Your task to perform on an android device: Go to sound settings Image 0: 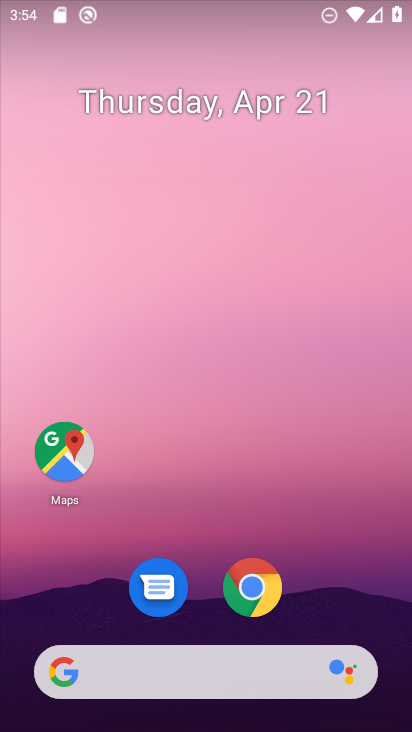
Step 0: drag from (357, 599) to (364, 52)
Your task to perform on an android device: Go to sound settings Image 1: 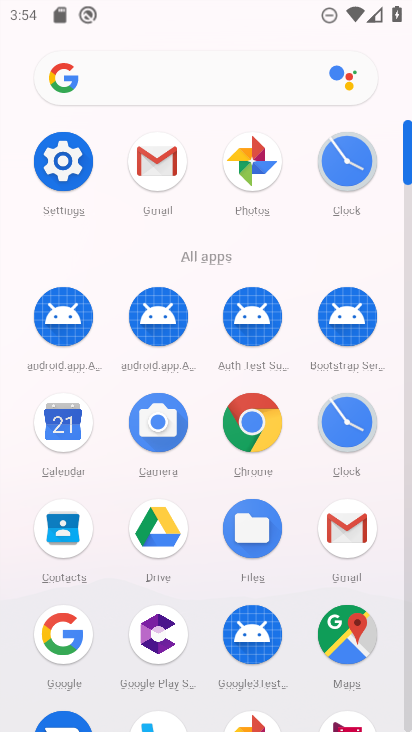
Step 1: click (66, 164)
Your task to perform on an android device: Go to sound settings Image 2: 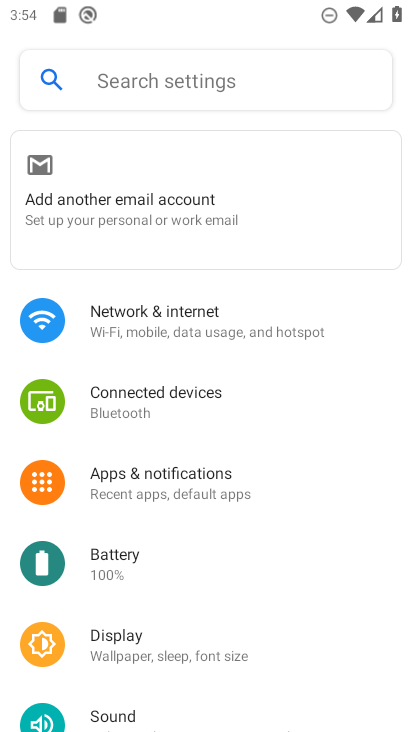
Step 2: click (113, 715)
Your task to perform on an android device: Go to sound settings Image 3: 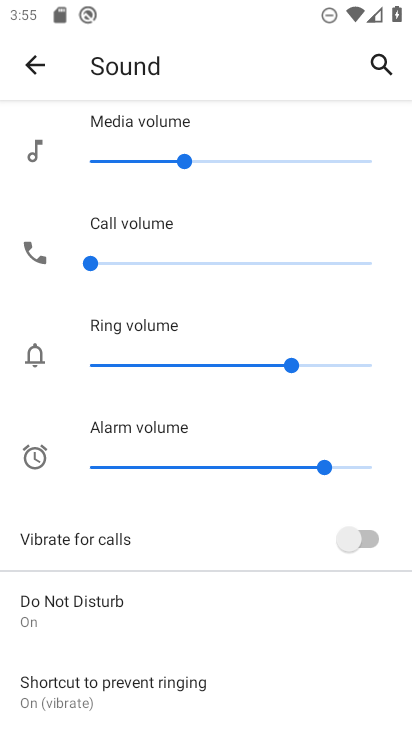
Step 3: task complete